Your task to perform on an android device: toggle notifications settings in the gmail app Image 0: 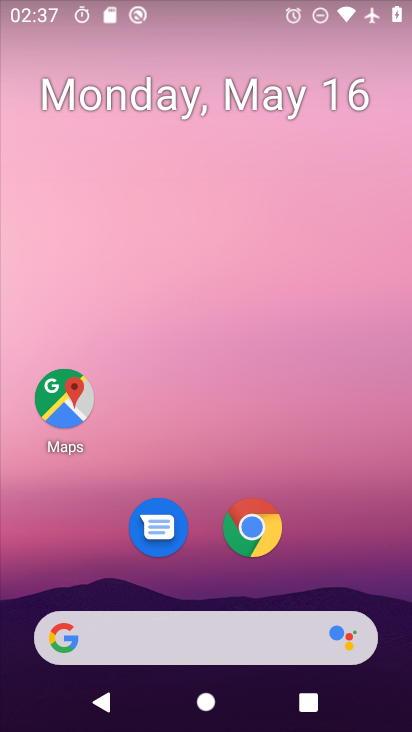
Step 0: drag from (200, 629) to (338, 148)
Your task to perform on an android device: toggle notifications settings in the gmail app Image 1: 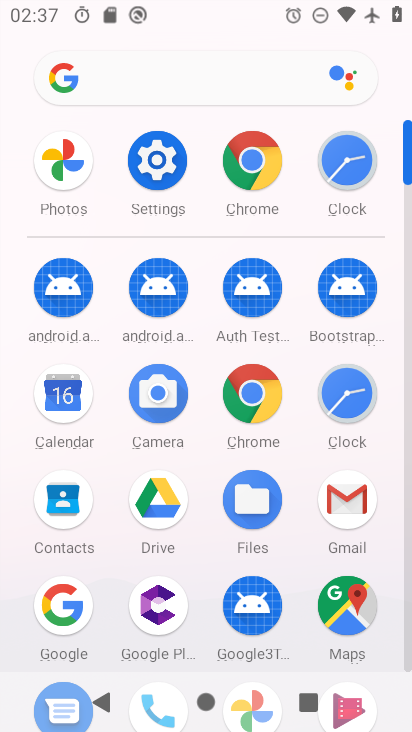
Step 1: click (350, 505)
Your task to perform on an android device: toggle notifications settings in the gmail app Image 2: 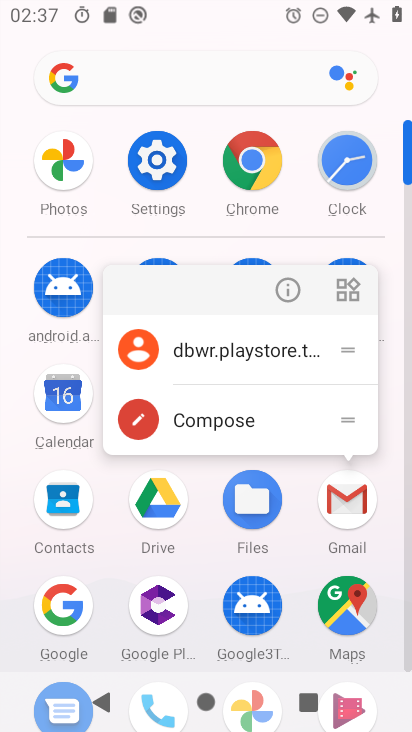
Step 2: click (351, 506)
Your task to perform on an android device: toggle notifications settings in the gmail app Image 3: 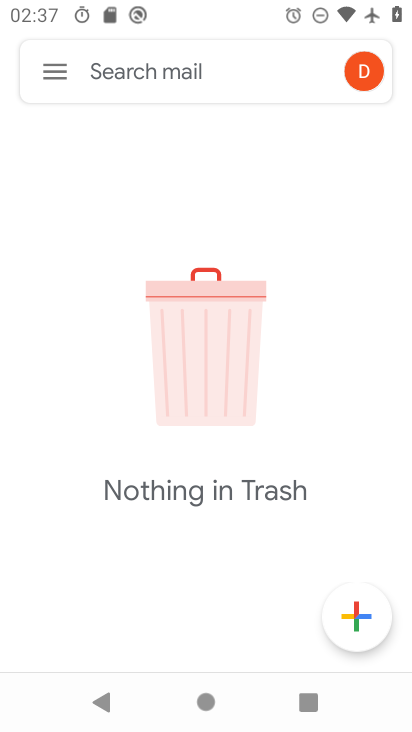
Step 3: click (56, 68)
Your task to perform on an android device: toggle notifications settings in the gmail app Image 4: 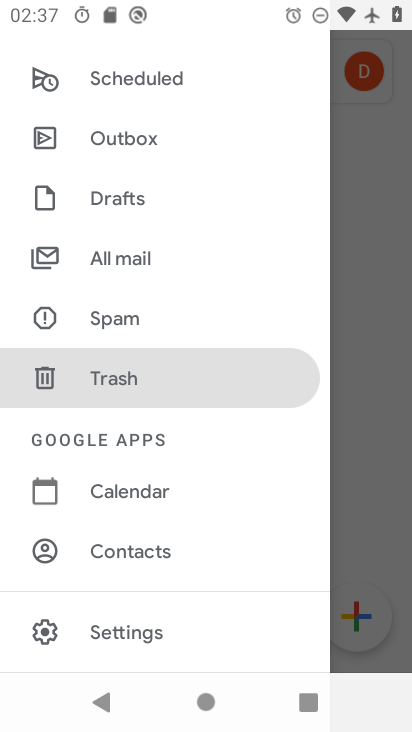
Step 4: drag from (158, 628) to (177, 247)
Your task to perform on an android device: toggle notifications settings in the gmail app Image 5: 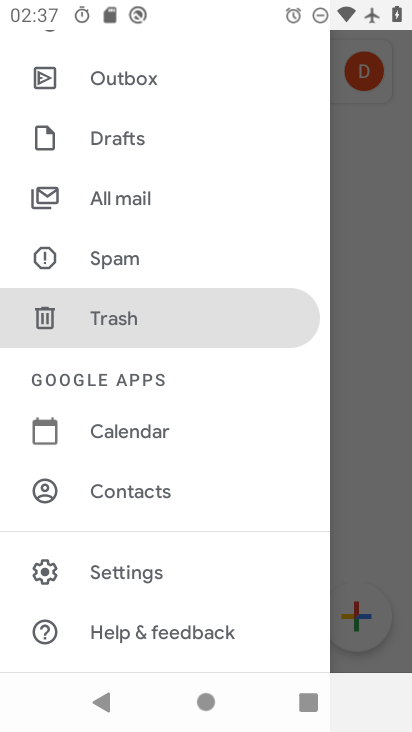
Step 5: click (123, 574)
Your task to perform on an android device: toggle notifications settings in the gmail app Image 6: 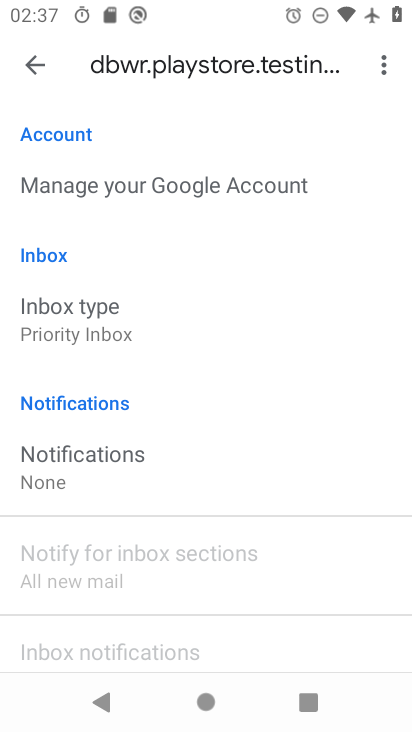
Step 6: click (90, 471)
Your task to perform on an android device: toggle notifications settings in the gmail app Image 7: 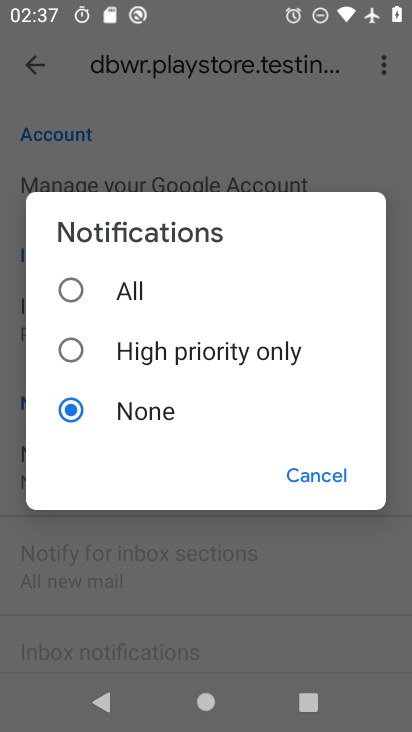
Step 7: click (71, 289)
Your task to perform on an android device: toggle notifications settings in the gmail app Image 8: 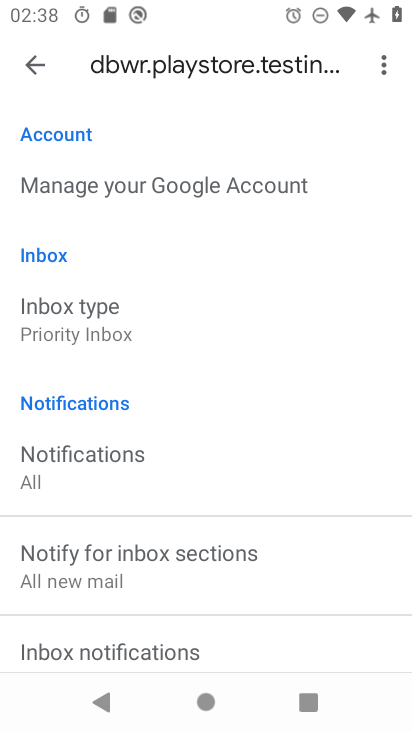
Step 8: task complete